Your task to perform on an android device: Open settings on Google Maps Image 0: 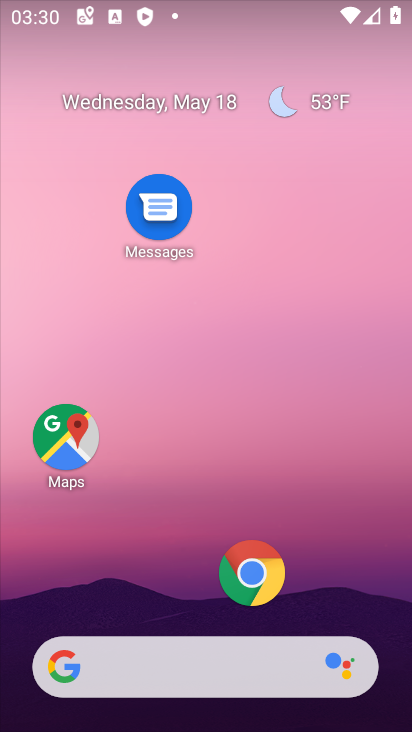
Step 0: click (64, 421)
Your task to perform on an android device: Open settings on Google Maps Image 1: 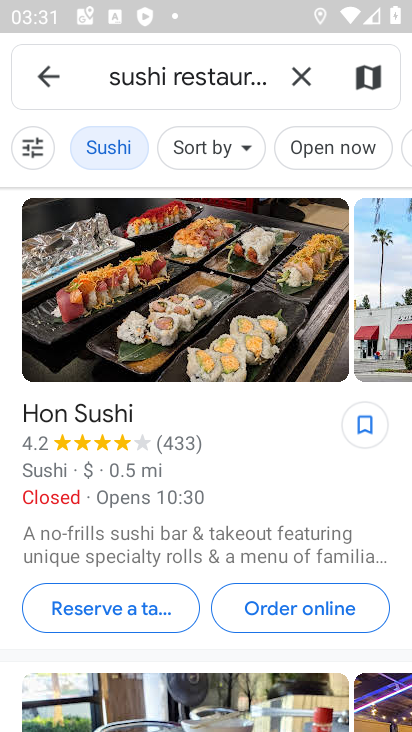
Step 1: click (30, 76)
Your task to perform on an android device: Open settings on Google Maps Image 2: 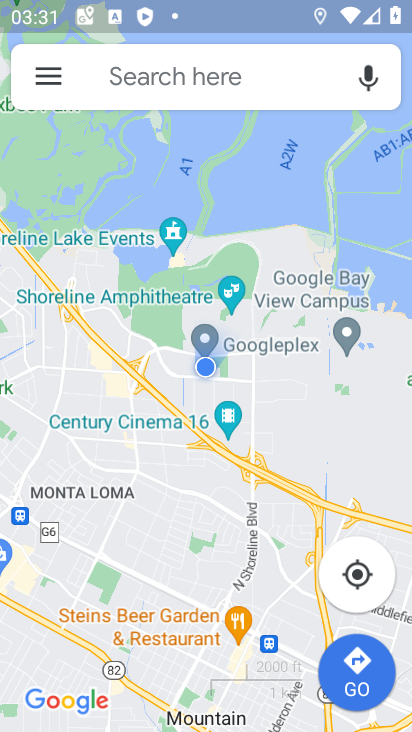
Step 2: click (45, 76)
Your task to perform on an android device: Open settings on Google Maps Image 3: 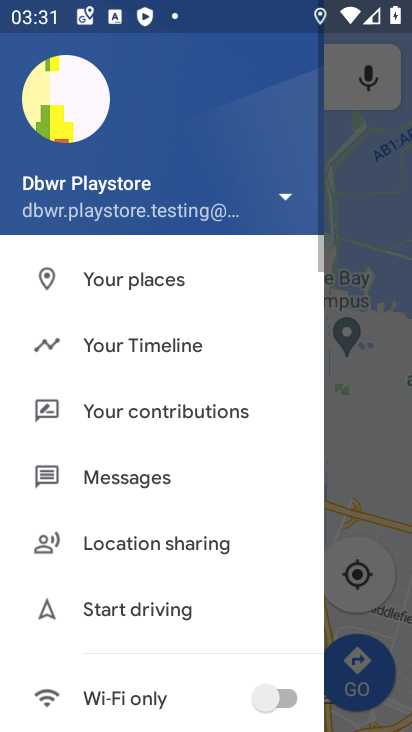
Step 3: drag from (163, 542) to (202, 317)
Your task to perform on an android device: Open settings on Google Maps Image 4: 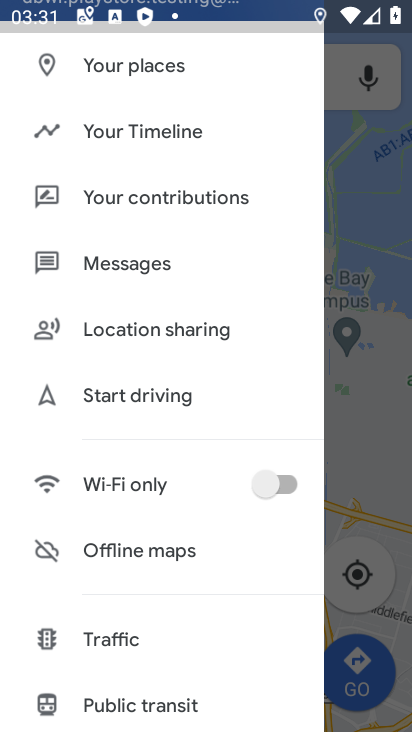
Step 4: drag from (120, 659) to (171, 395)
Your task to perform on an android device: Open settings on Google Maps Image 5: 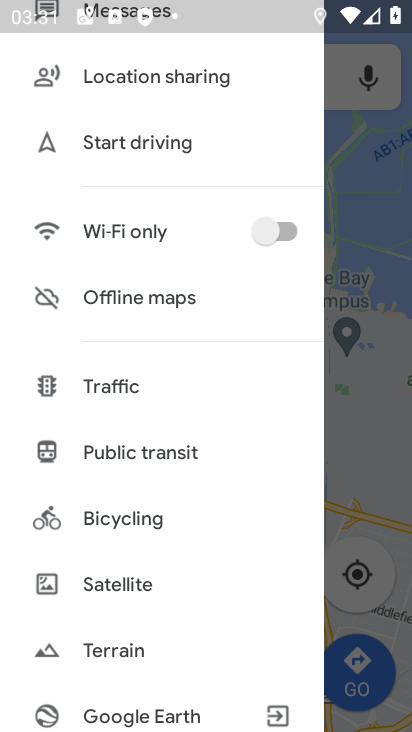
Step 5: drag from (160, 584) to (179, 406)
Your task to perform on an android device: Open settings on Google Maps Image 6: 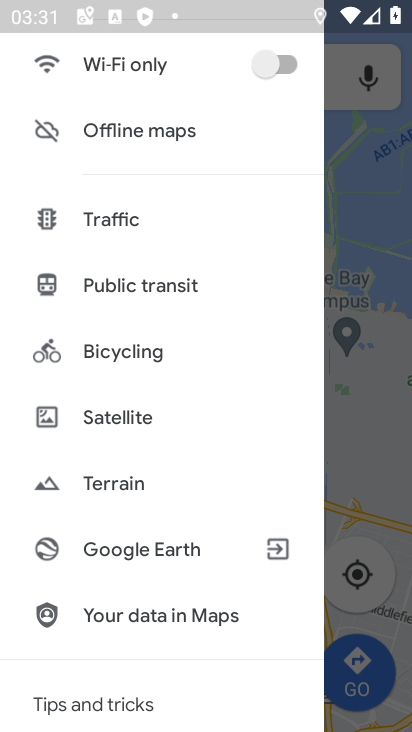
Step 6: drag from (170, 596) to (221, 234)
Your task to perform on an android device: Open settings on Google Maps Image 7: 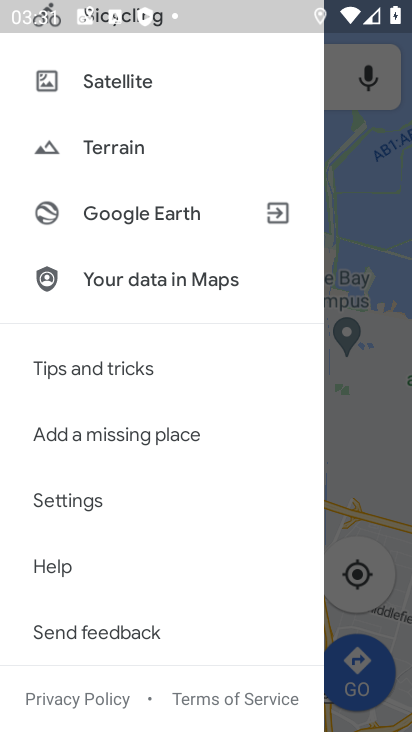
Step 7: click (83, 494)
Your task to perform on an android device: Open settings on Google Maps Image 8: 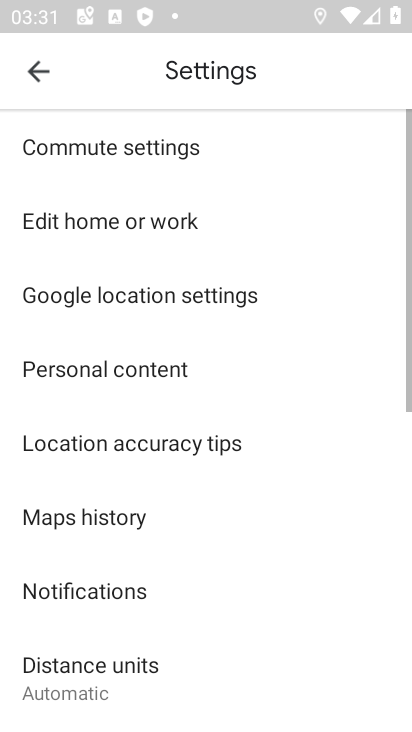
Step 8: task complete